Your task to perform on an android device: set an alarm Image 0: 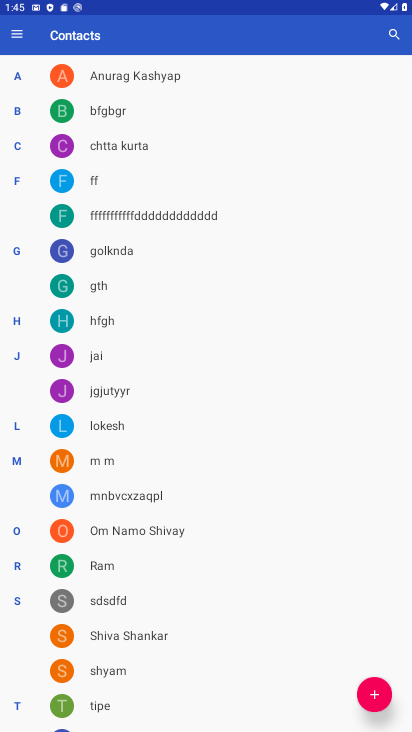
Step 0: press home button
Your task to perform on an android device: set an alarm Image 1: 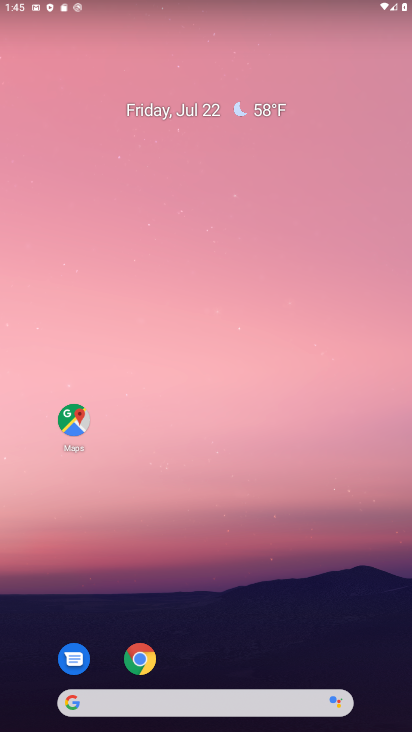
Step 1: drag from (219, 681) to (208, 66)
Your task to perform on an android device: set an alarm Image 2: 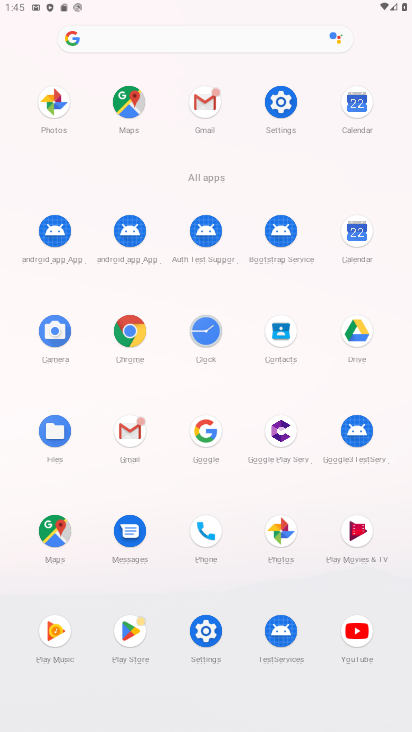
Step 2: click (212, 349)
Your task to perform on an android device: set an alarm Image 3: 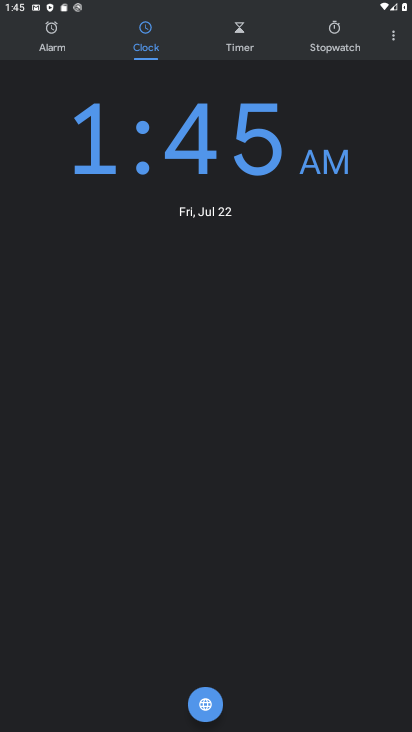
Step 3: click (45, 44)
Your task to perform on an android device: set an alarm Image 4: 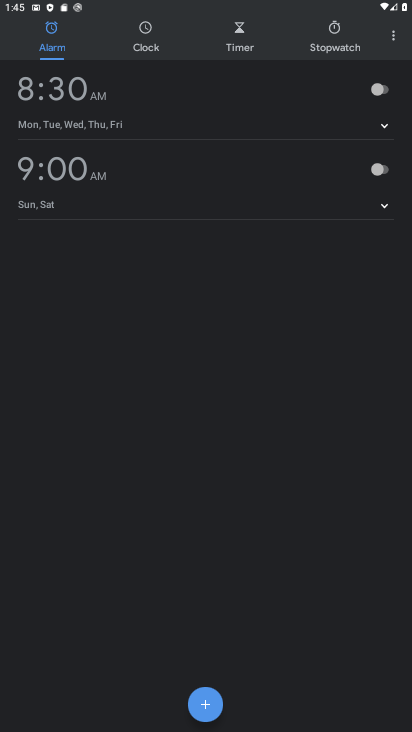
Step 4: click (203, 707)
Your task to perform on an android device: set an alarm Image 5: 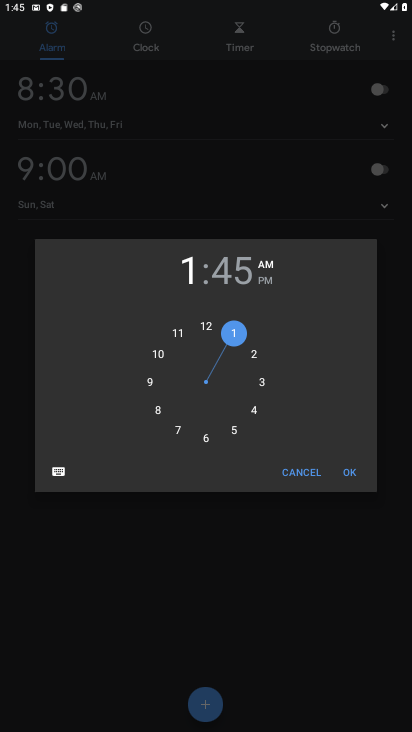
Step 5: click (351, 475)
Your task to perform on an android device: set an alarm Image 6: 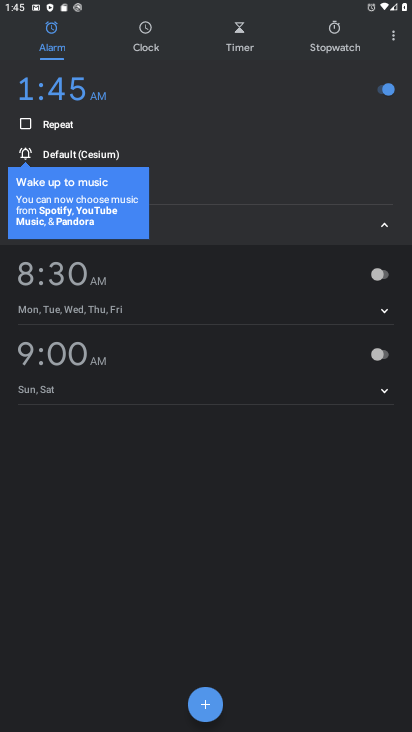
Step 6: task complete